Your task to perform on an android device: Search for pizza restaurants on Maps Image 0: 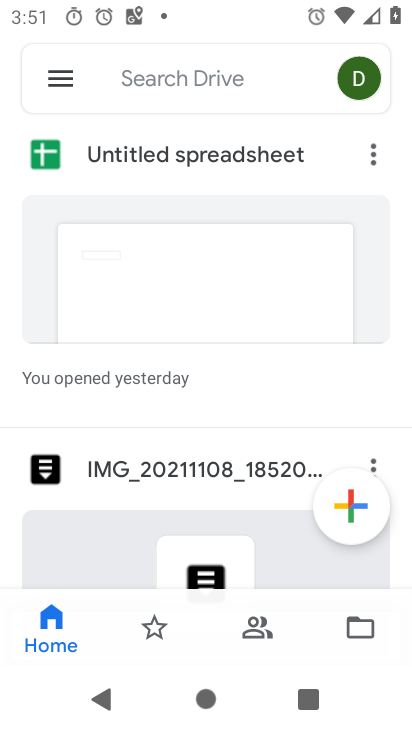
Step 0: press home button
Your task to perform on an android device: Search for pizza restaurants on Maps Image 1: 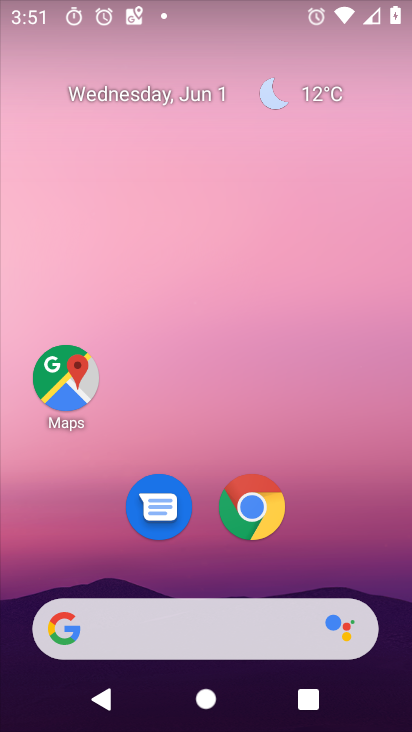
Step 1: click (61, 389)
Your task to perform on an android device: Search for pizza restaurants on Maps Image 2: 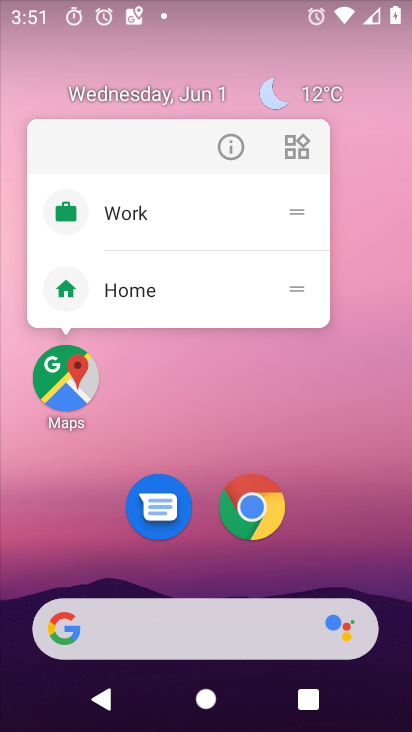
Step 2: click (61, 389)
Your task to perform on an android device: Search for pizza restaurants on Maps Image 3: 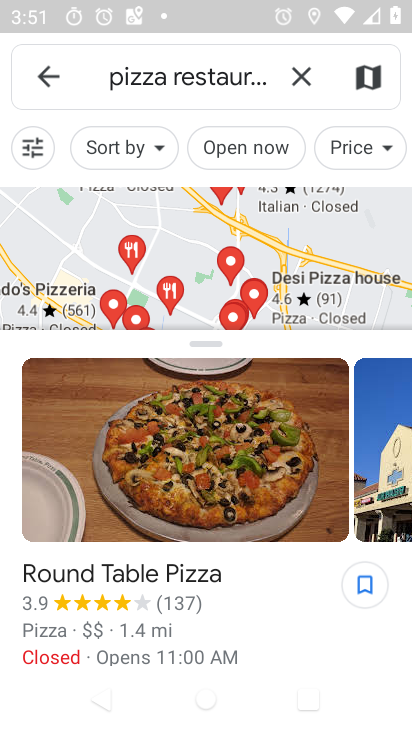
Step 3: task complete